Your task to perform on an android device: uninstall "Microsoft Outlook" Image 0: 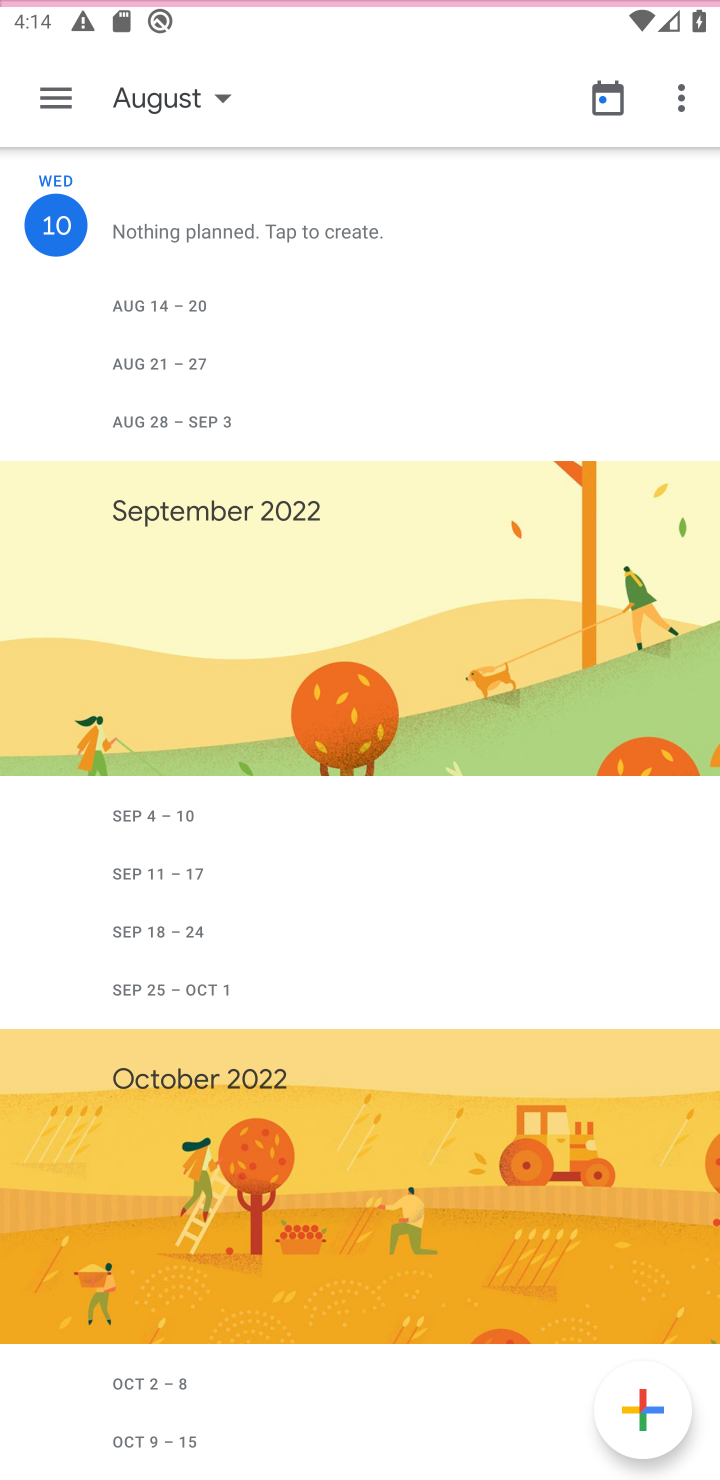
Step 0: click (36, 94)
Your task to perform on an android device: uninstall "Microsoft Outlook" Image 1: 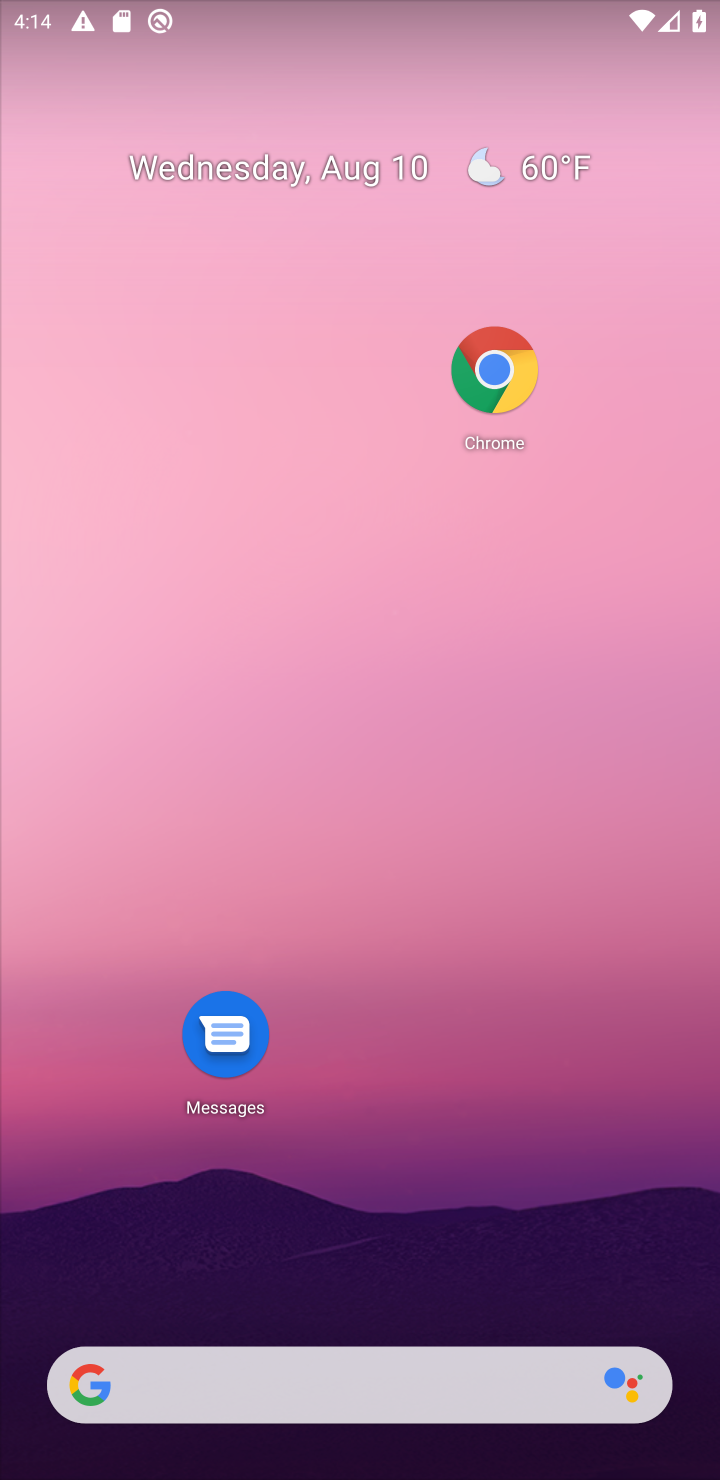
Step 1: drag from (486, 995) to (486, 442)
Your task to perform on an android device: uninstall "Microsoft Outlook" Image 2: 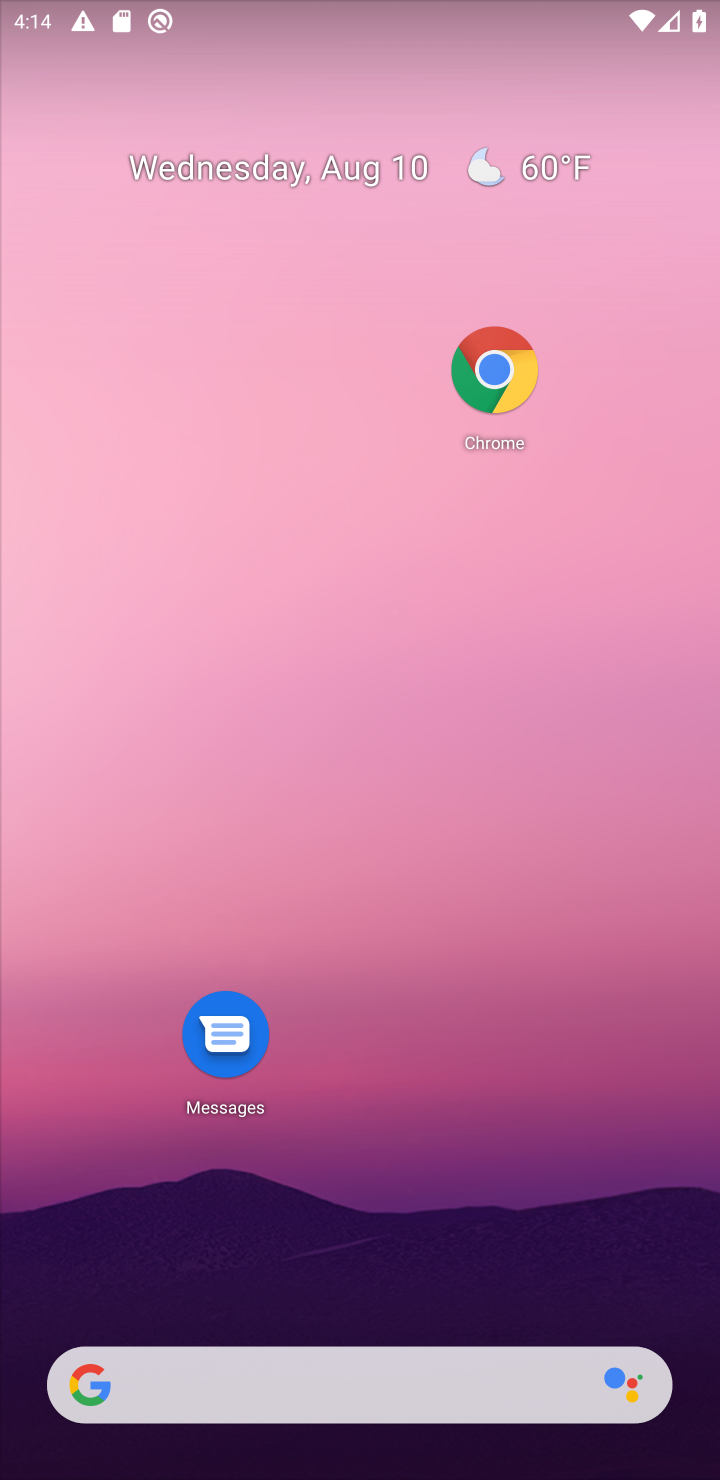
Step 2: drag from (362, 1287) to (391, 159)
Your task to perform on an android device: uninstall "Microsoft Outlook" Image 3: 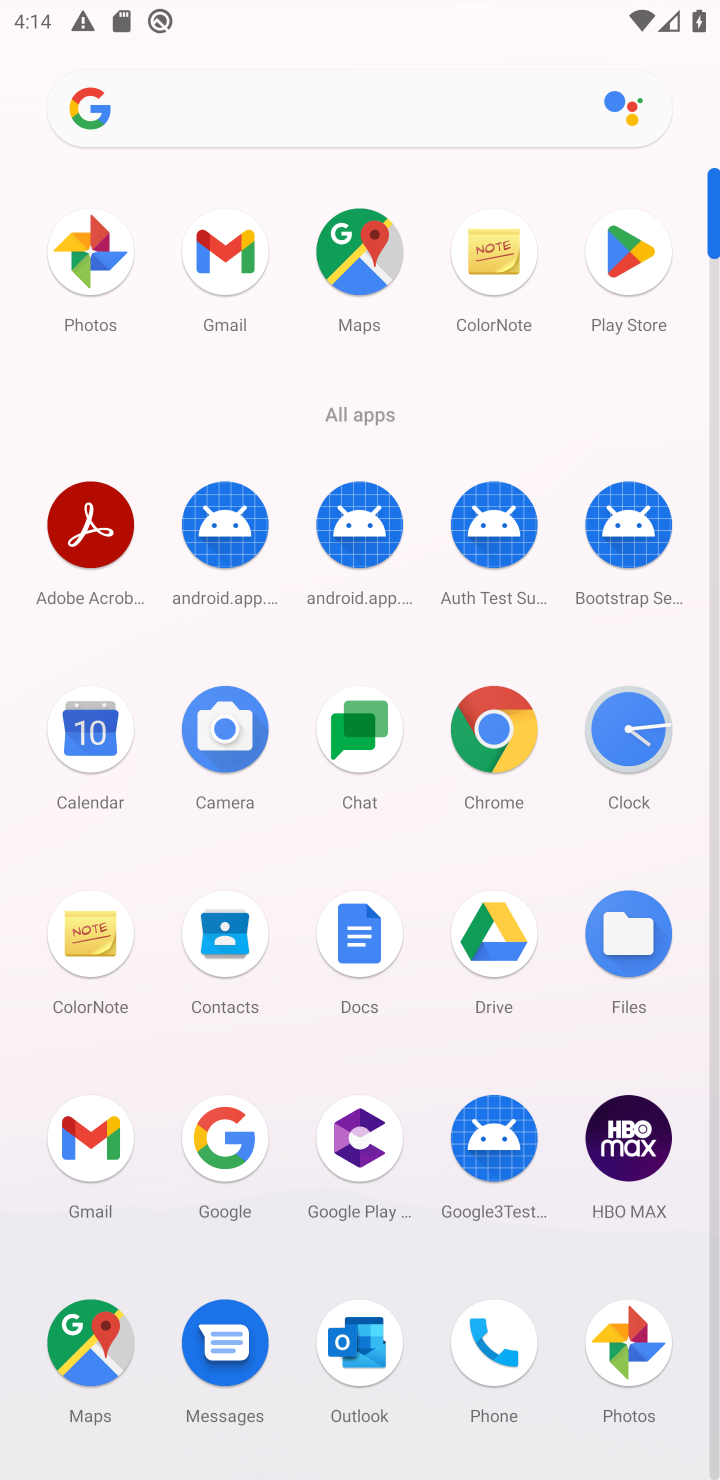
Step 3: click (643, 240)
Your task to perform on an android device: uninstall "Microsoft Outlook" Image 4: 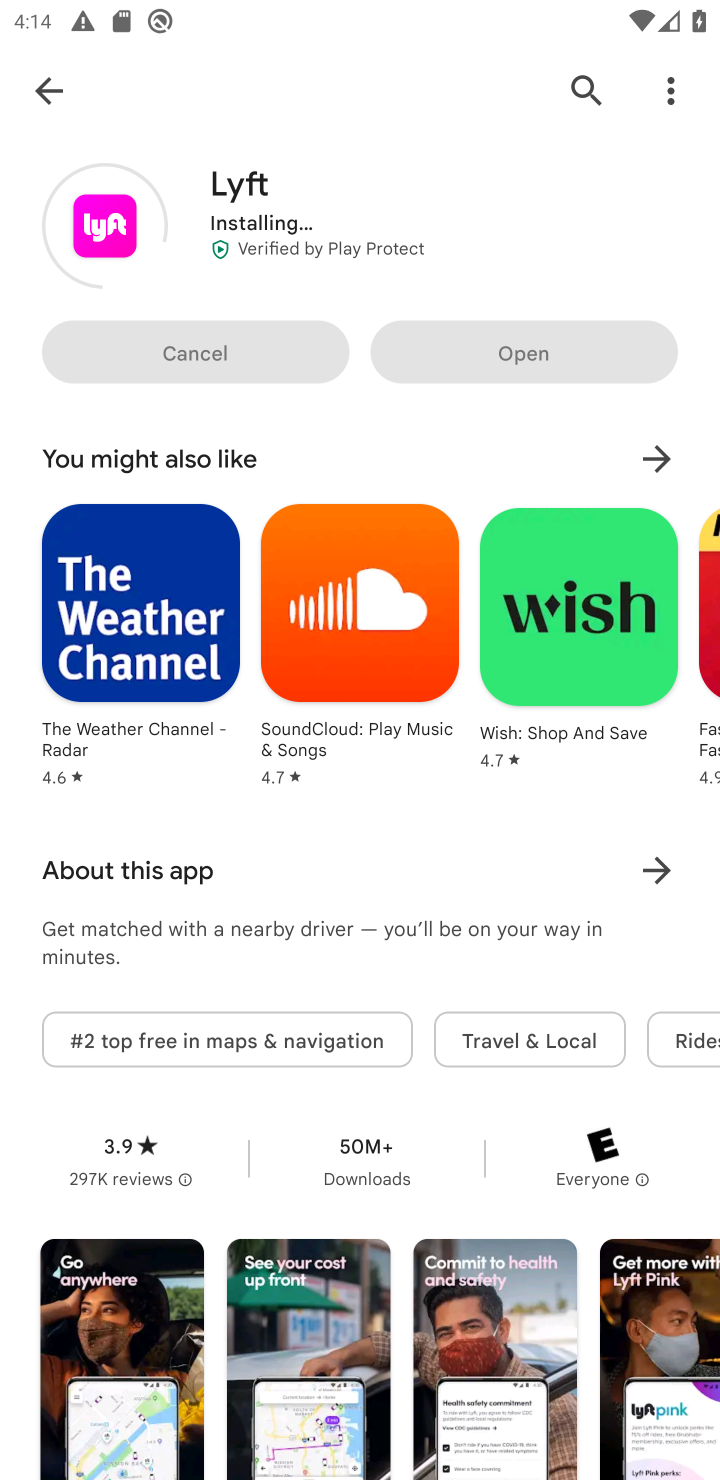
Step 4: click (35, 85)
Your task to perform on an android device: uninstall "Microsoft Outlook" Image 5: 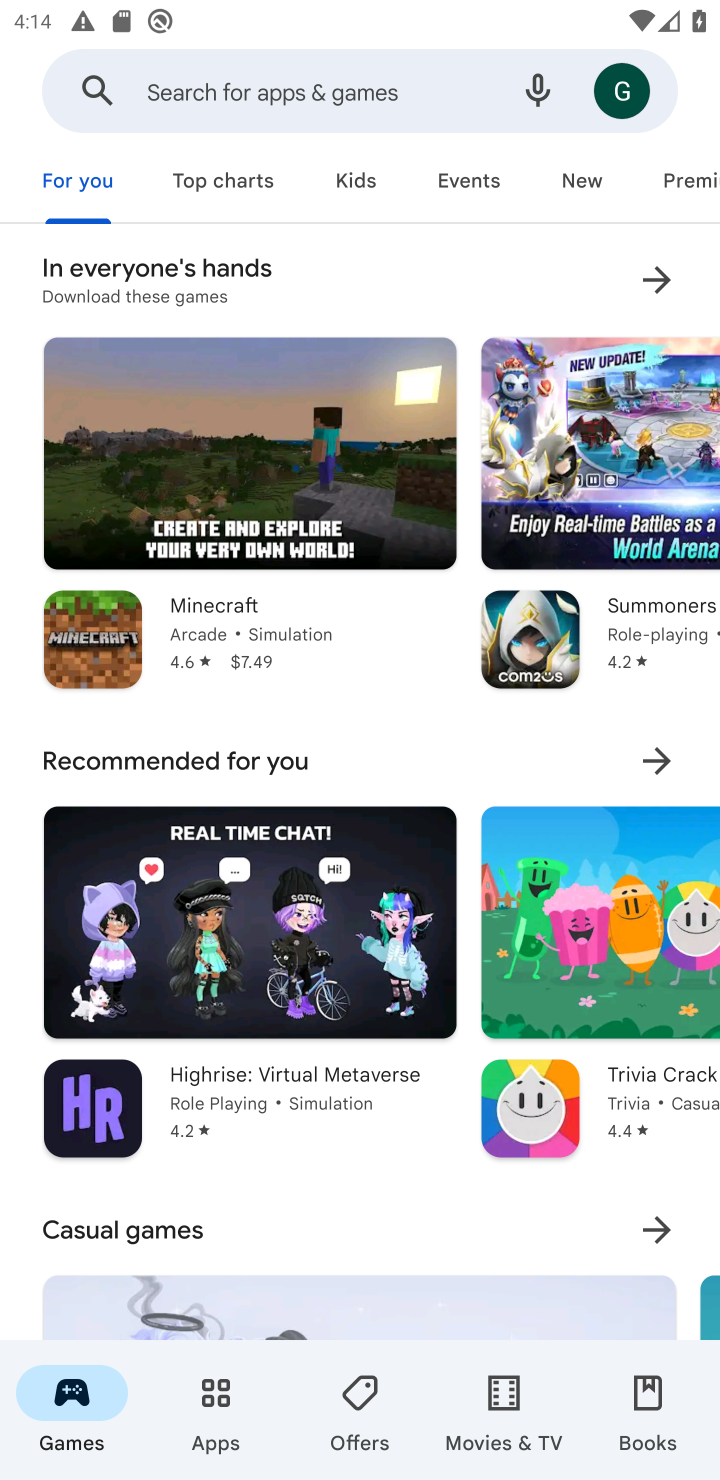
Step 5: click (303, 78)
Your task to perform on an android device: uninstall "Microsoft Outlook" Image 6: 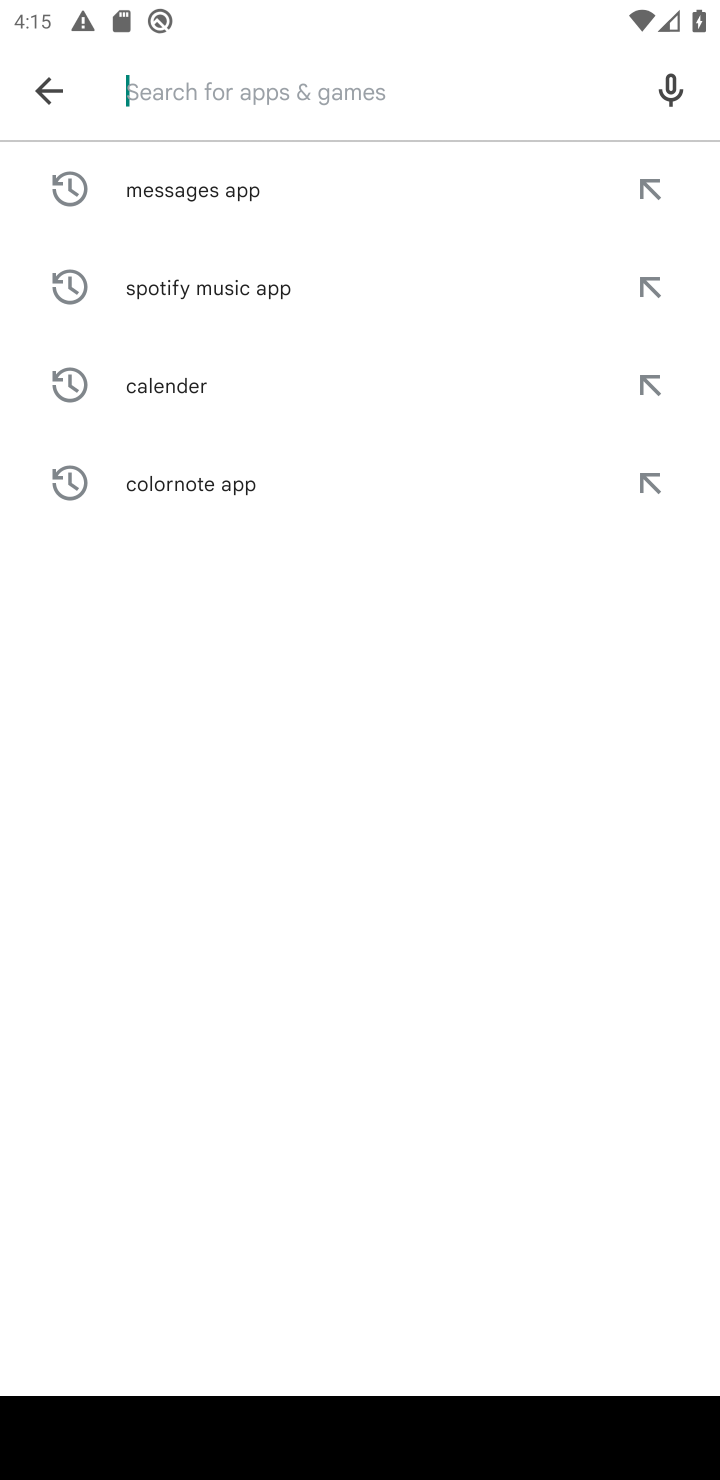
Step 6: type "microsoft "
Your task to perform on an android device: uninstall "Microsoft Outlook" Image 7: 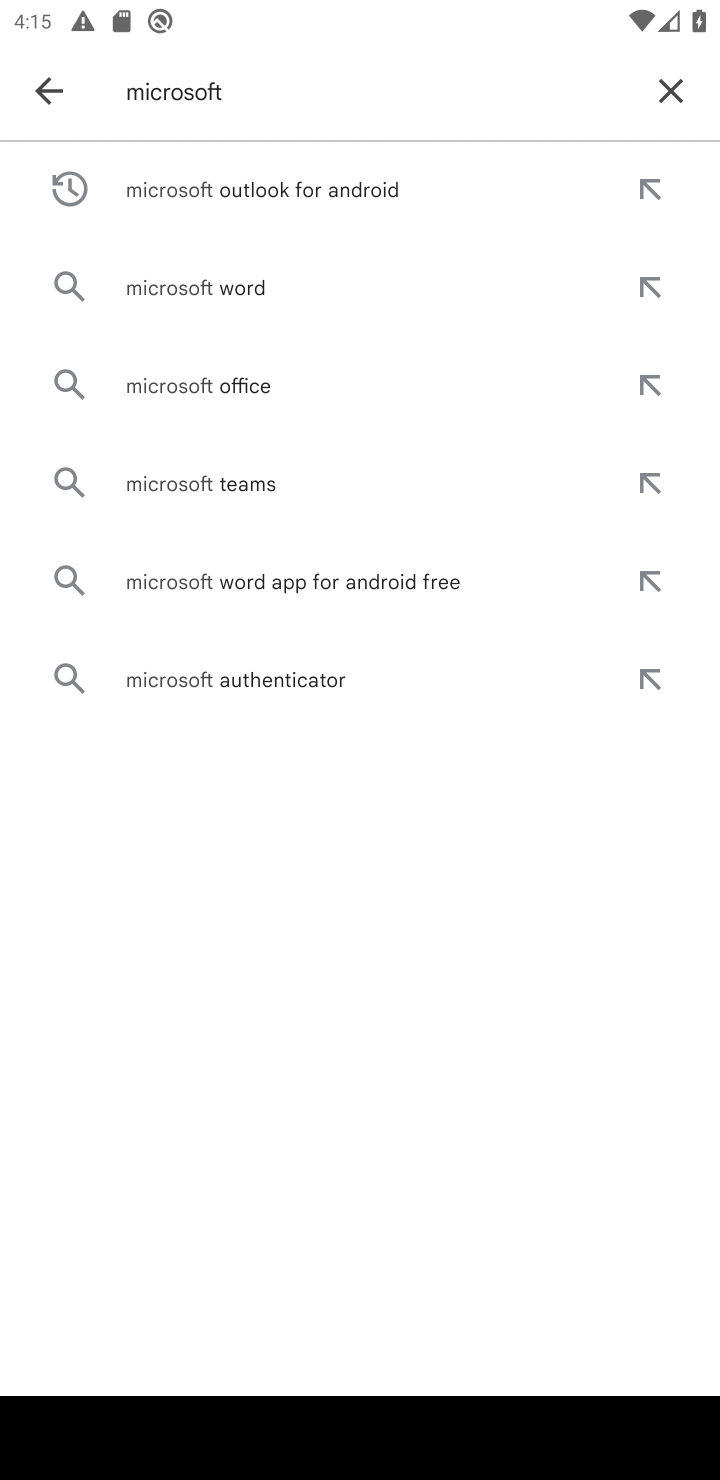
Step 7: click (270, 183)
Your task to perform on an android device: uninstall "Microsoft Outlook" Image 8: 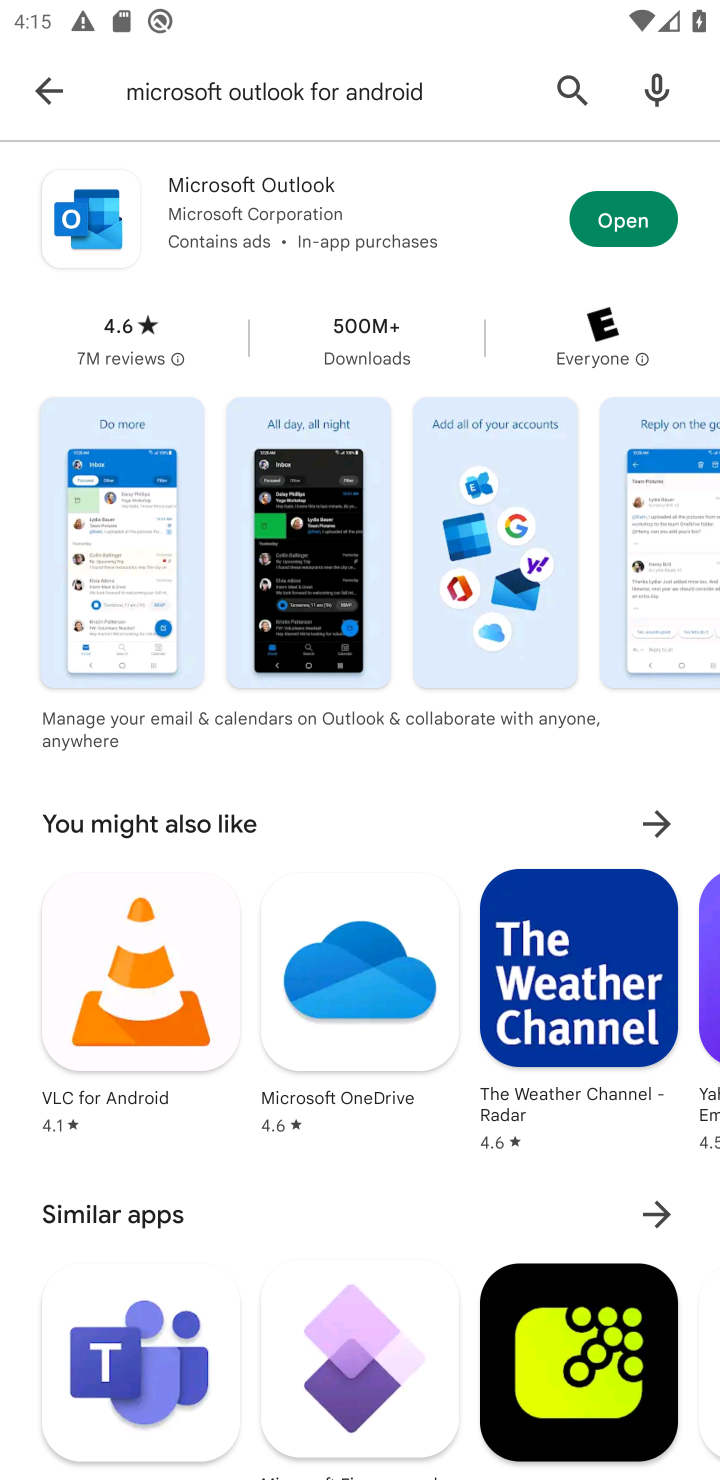
Step 8: click (353, 186)
Your task to perform on an android device: uninstall "Microsoft Outlook" Image 9: 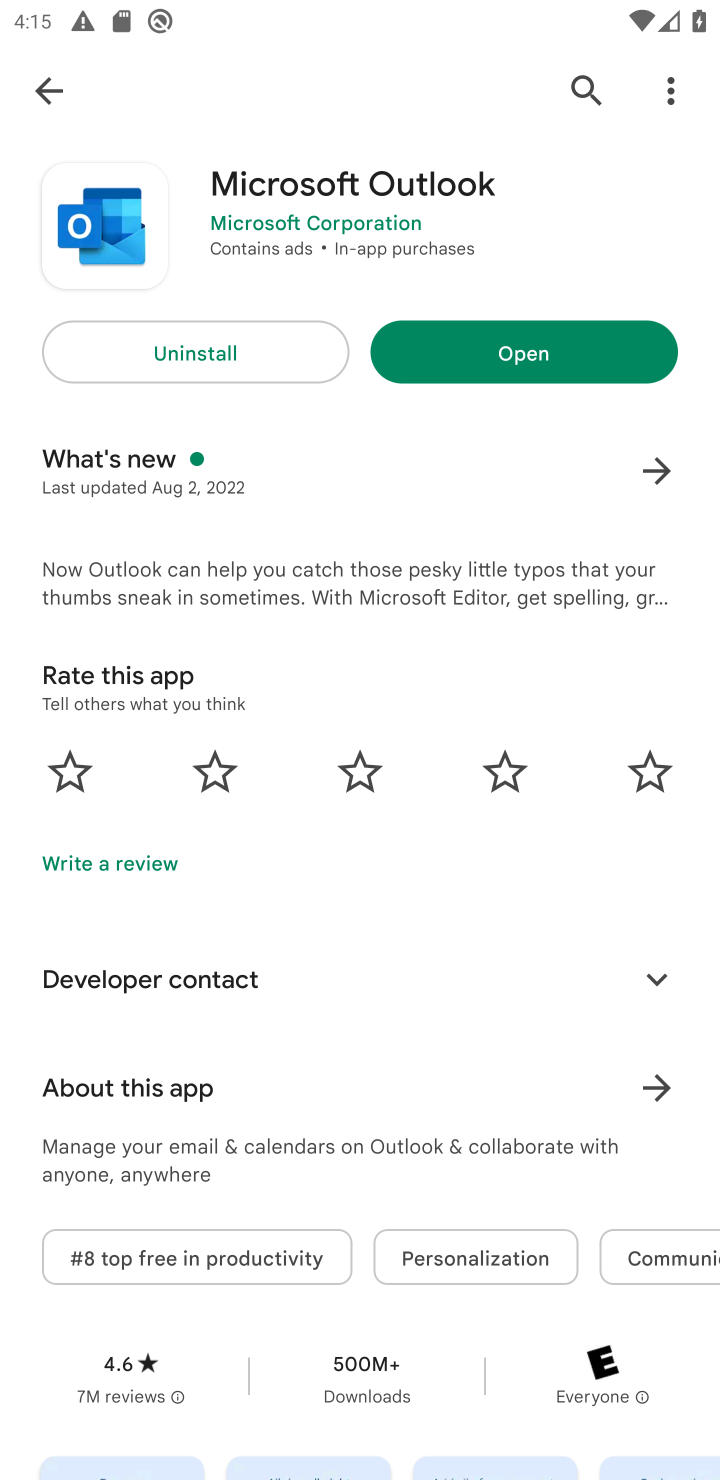
Step 9: click (195, 374)
Your task to perform on an android device: uninstall "Microsoft Outlook" Image 10: 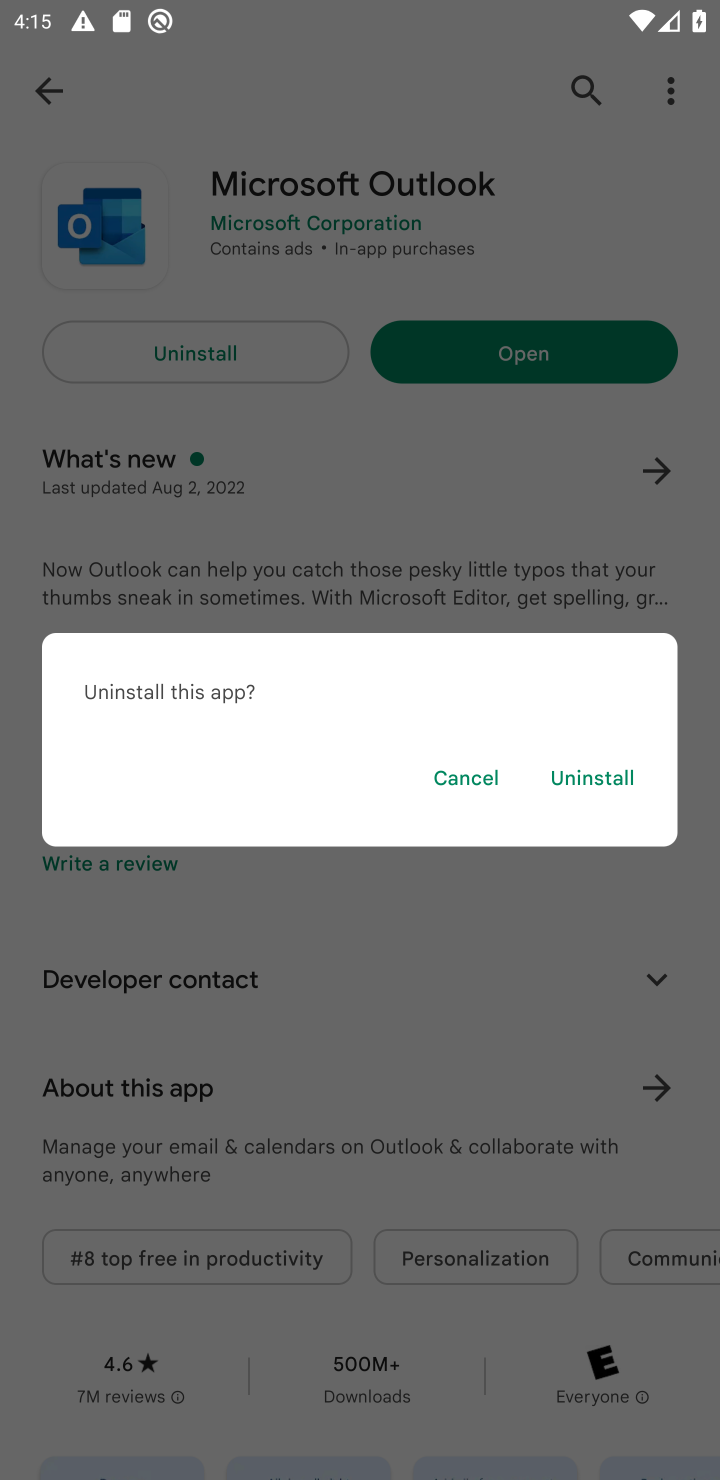
Step 10: click (592, 761)
Your task to perform on an android device: uninstall "Microsoft Outlook" Image 11: 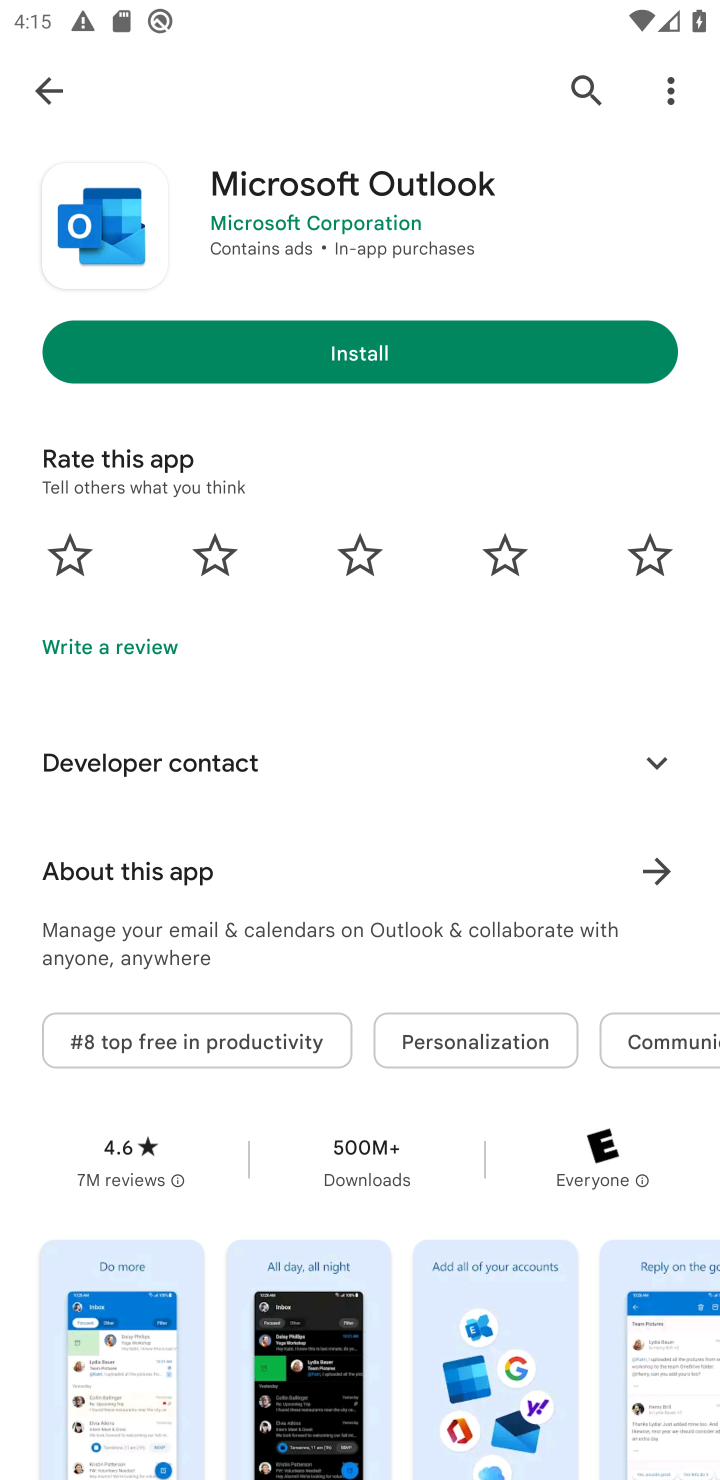
Step 11: task complete